Your task to perform on an android device: Show me the alarms in the clock app Image 0: 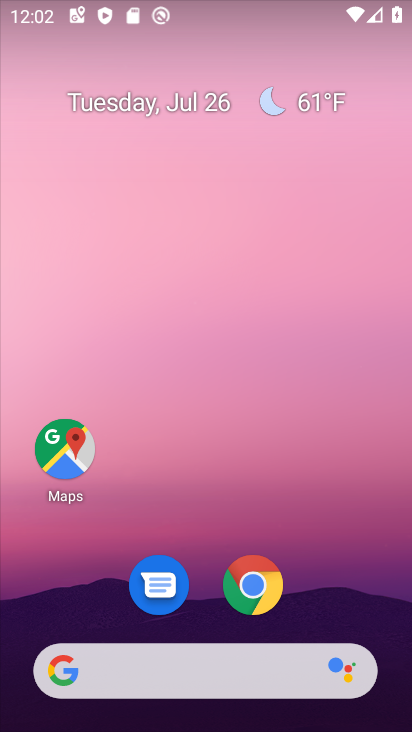
Step 0: drag from (318, 581) to (306, 52)
Your task to perform on an android device: Show me the alarms in the clock app Image 1: 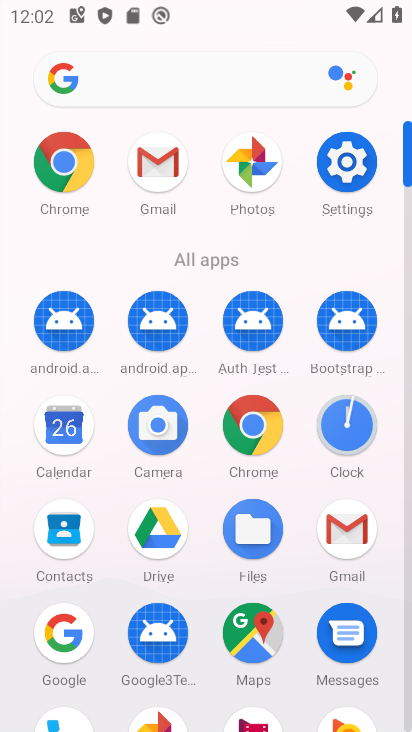
Step 1: click (356, 427)
Your task to perform on an android device: Show me the alarms in the clock app Image 2: 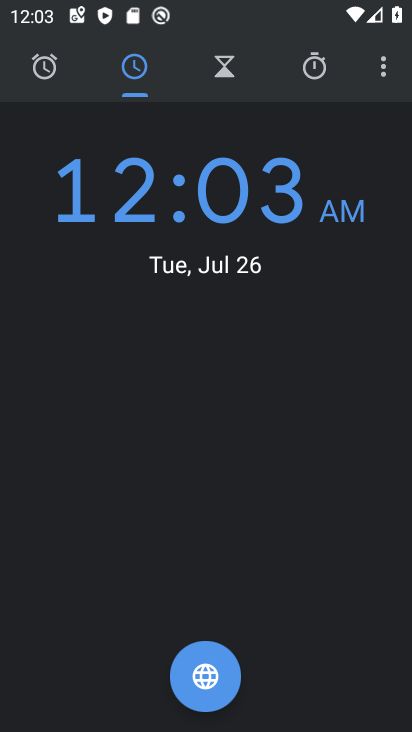
Step 2: click (45, 59)
Your task to perform on an android device: Show me the alarms in the clock app Image 3: 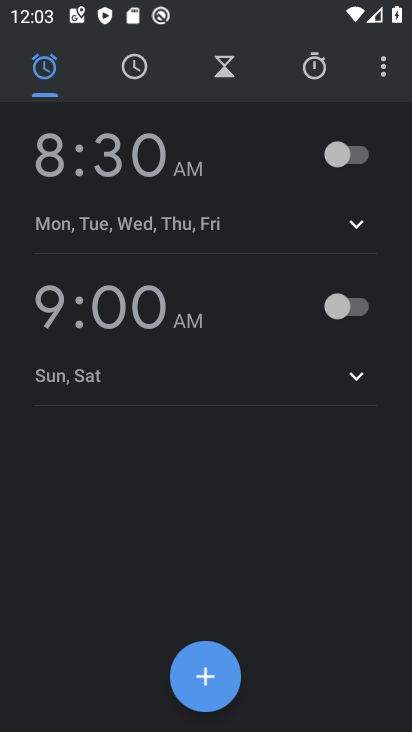
Step 3: task complete